Your task to perform on an android device: Open Chrome and go to the settings page Image 0: 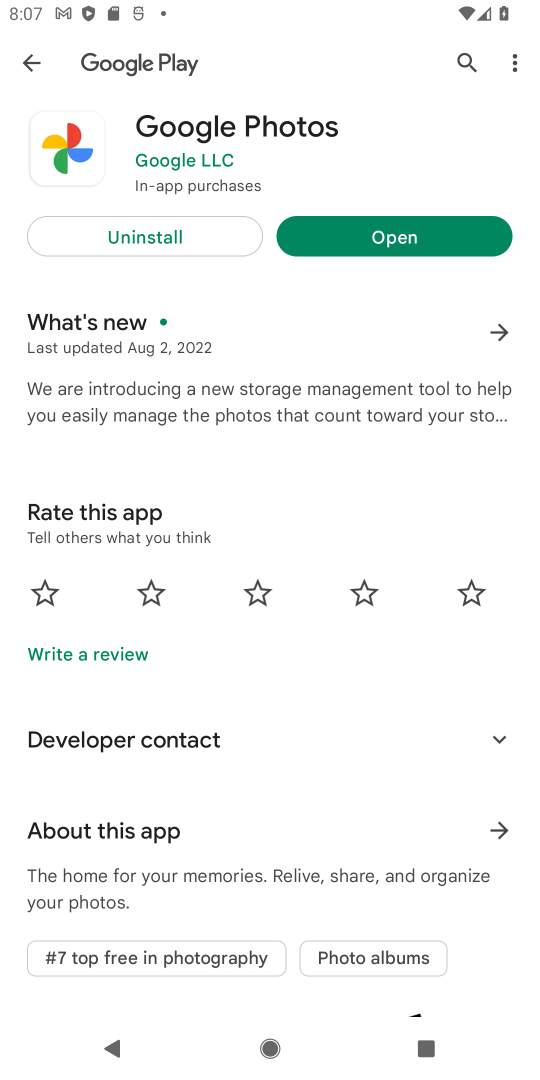
Step 0: press home button
Your task to perform on an android device: Open Chrome and go to the settings page Image 1: 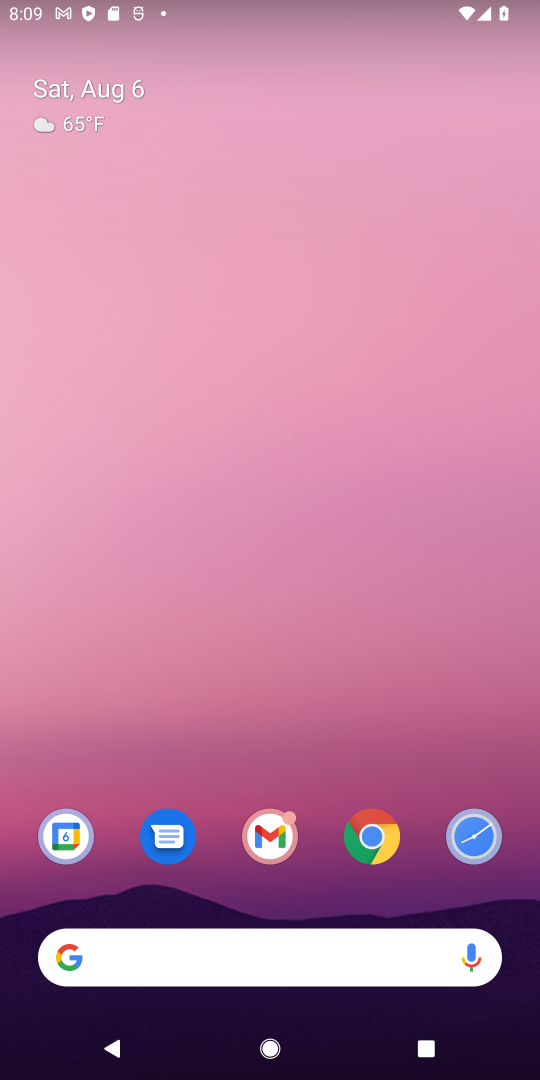
Step 1: drag from (425, 877) to (299, 133)
Your task to perform on an android device: Open Chrome and go to the settings page Image 2: 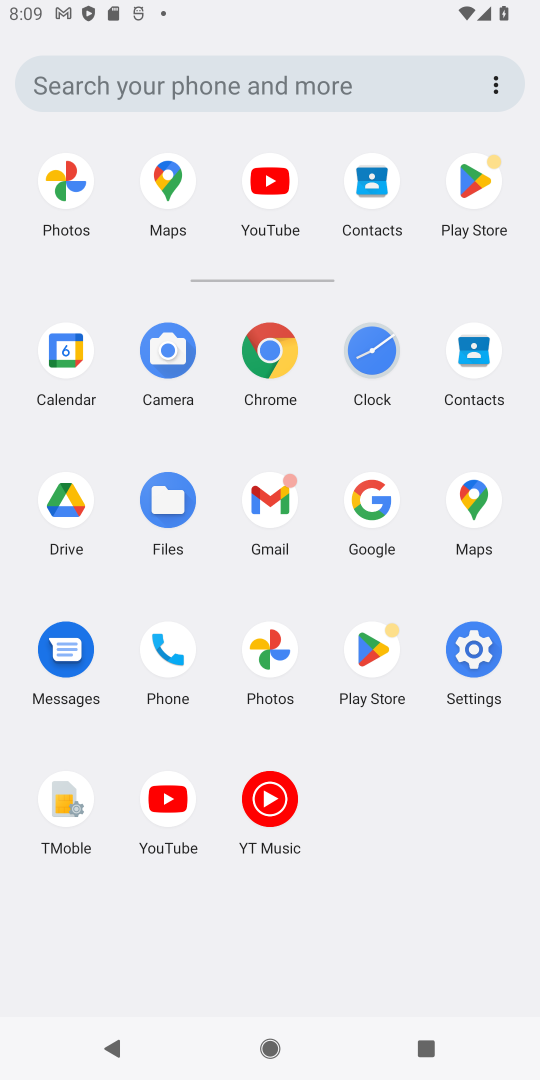
Step 2: click (288, 373)
Your task to perform on an android device: Open Chrome and go to the settings page Image 3: 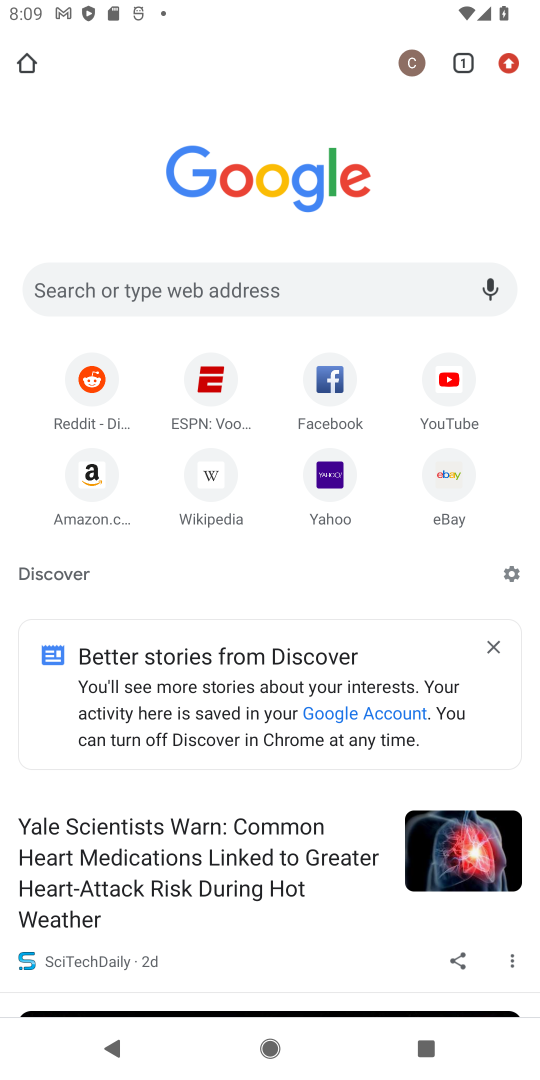
Step 3: click (506, 64)
Your task to perform on an android device: Open Chrome and go to the settings page Image 4: 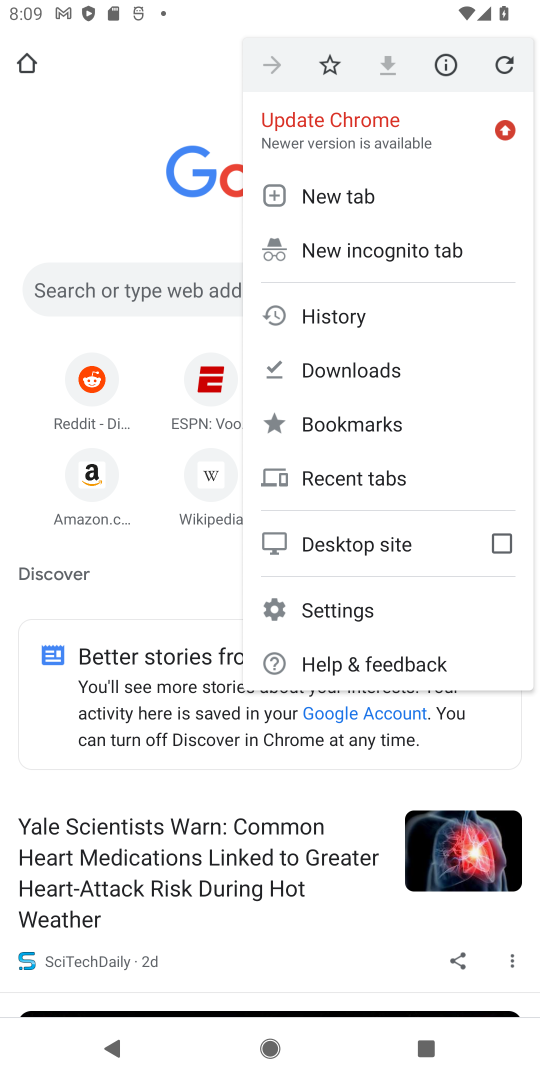
Step 4: click (319, 621)
Your task to perform on an android device: Open Chrome and go to the settings page Image 5: 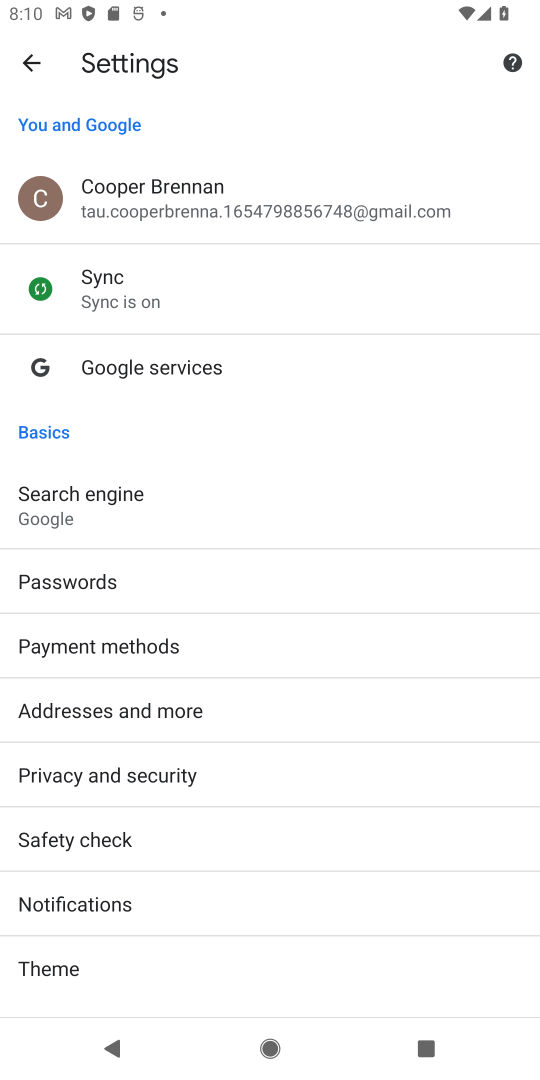
Step 5: task complete